Your task to perform on an android device: delete the emails in spam in the gmail app Image 0: 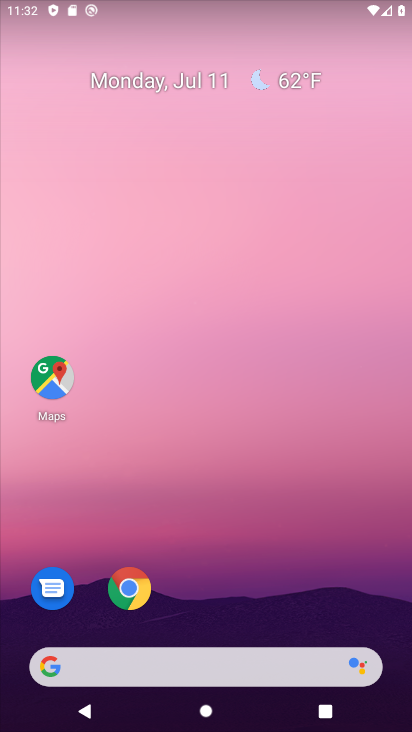
Step 0: drag from (181, 534) to (226, 171)
Your task to perform on an android device: delete the emails in spam in the gmail app Image 1: 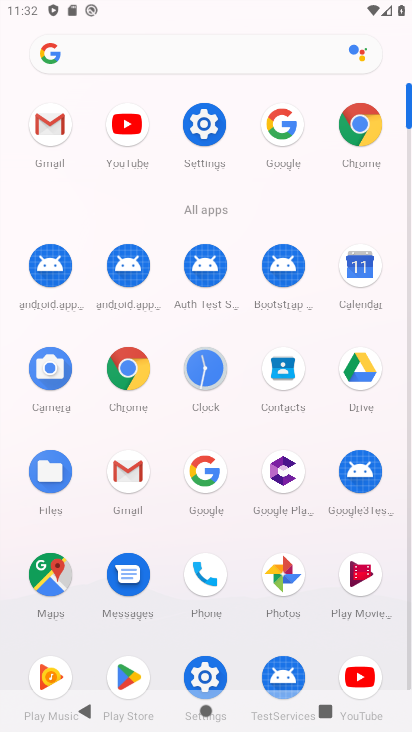
Step 1: click (52, 148)
Your task to perform on an android device: delete the emails in spam in the gmail app Image 2: 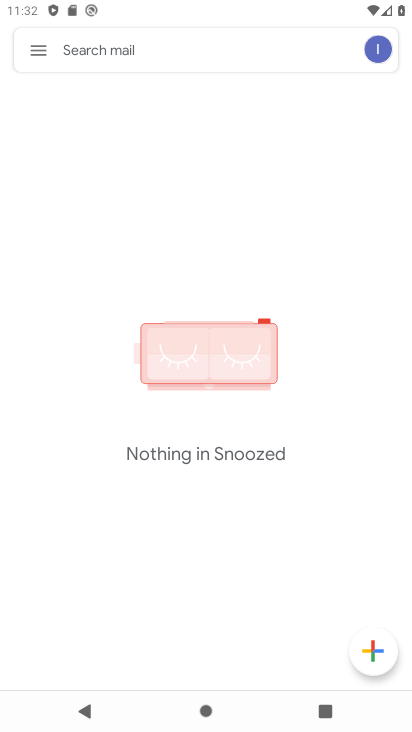
Step 2: click (34, 49)
Your task to perform on an android device: delete the emails in spam in the gmail app Image 3: 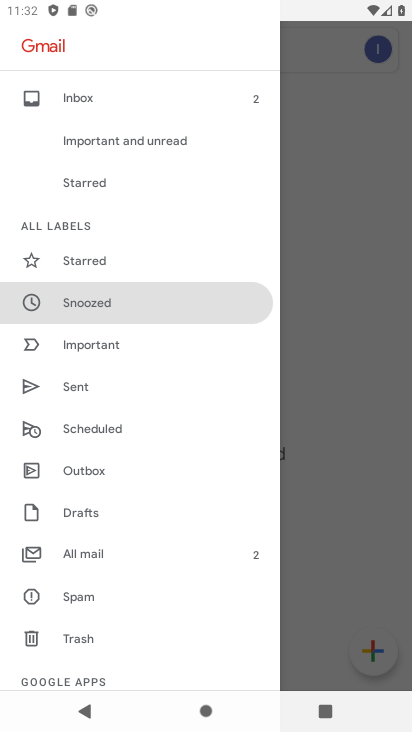
Step 3: click (88, 593)
Your task to perform on an android device: delete the emails in spam in the gmail app Image 4: 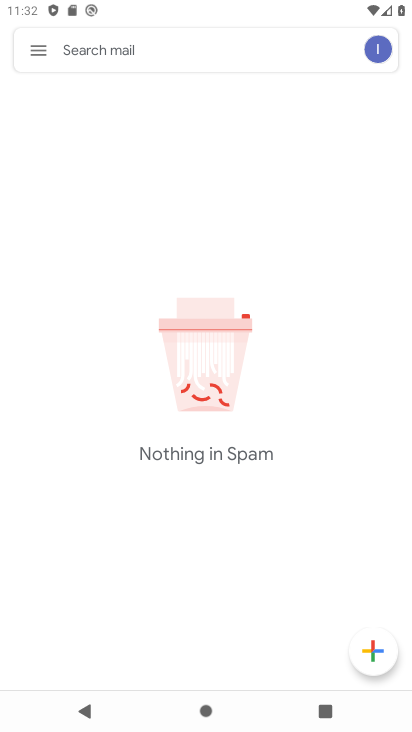
Step 4: task complete